Your task to perform on an android device: move a message to another label in the gmail app Image 0: 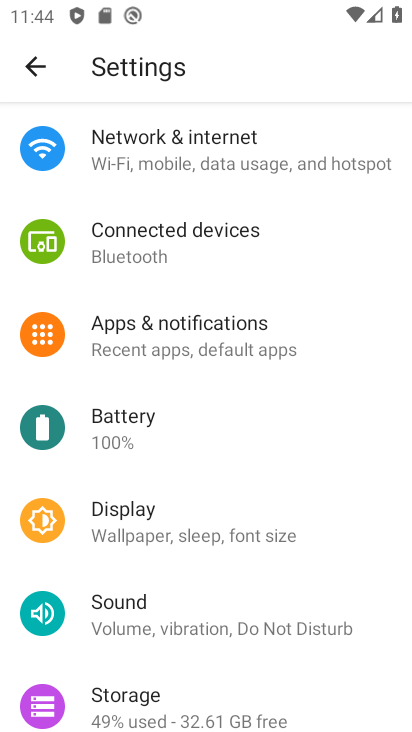
Step 0: press home button
Your task to perform on an android device: move a message to another label in the gmail app Image 1: 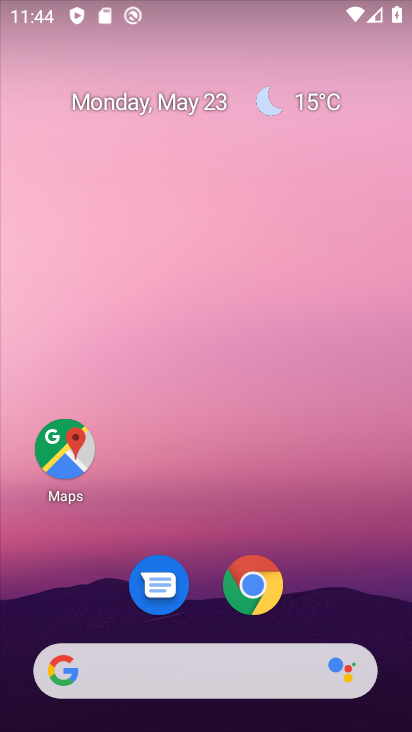
Step 1: drag from (226, 489) to (259, 12)
Your task to perform on an android device: move a message to another label in the gmail app Image 2: 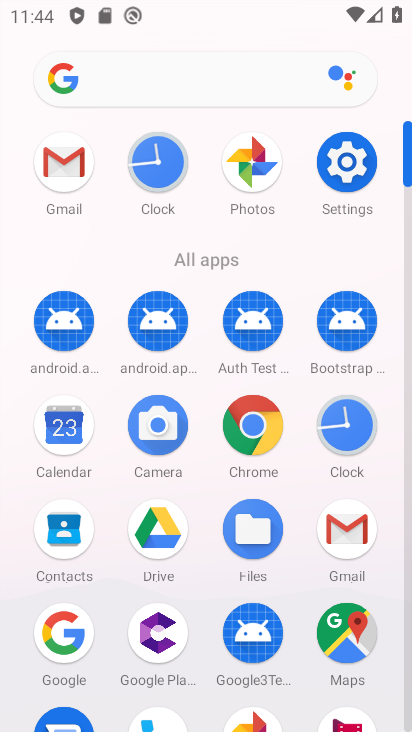
Step 2: click (50, 155)
Your task to perform on an android device: move a message to another label in the gmail app Image 3: 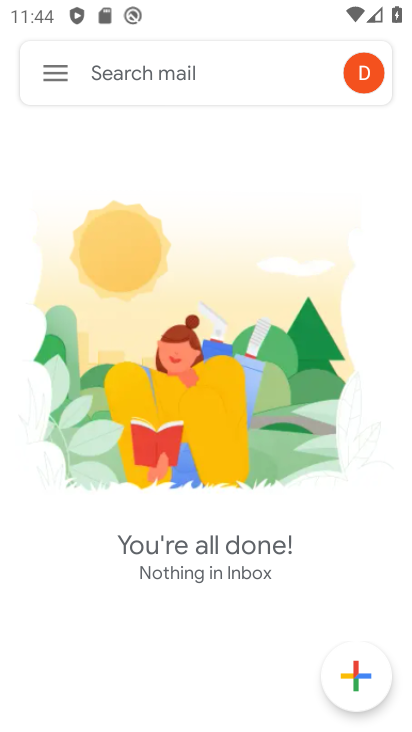
Step 3: click (63, 63)
Your task to perform on an android device: move a message to another label in the gmail app Image 4: 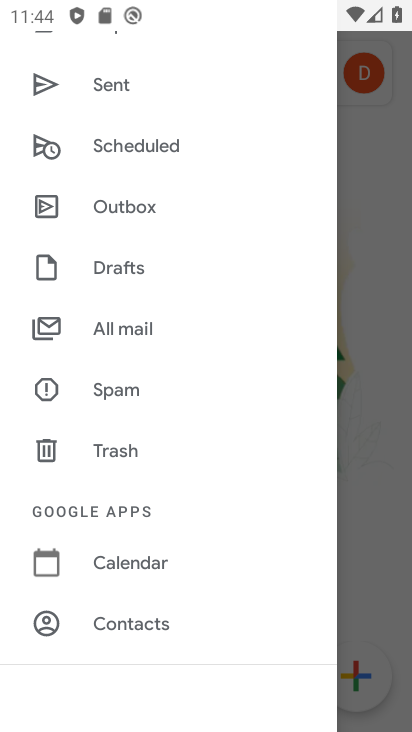
Step 4: click (123, 325)
Your task to perform on an android device: move a message to another label in the gmail app Image 5: 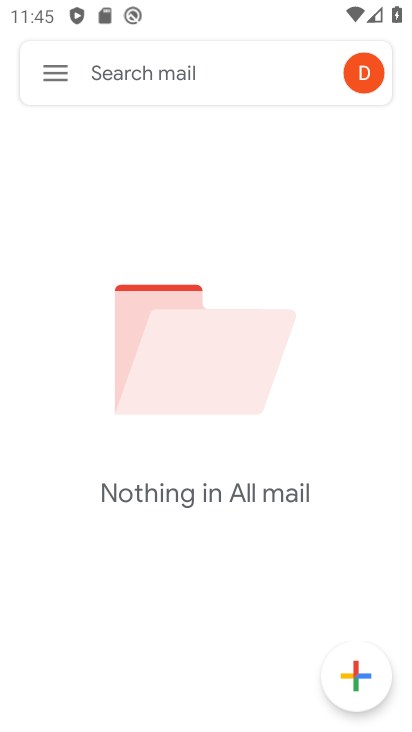
Step 5: task complete